Your task to perform on an android device: open app "Pinterest" Image 0: 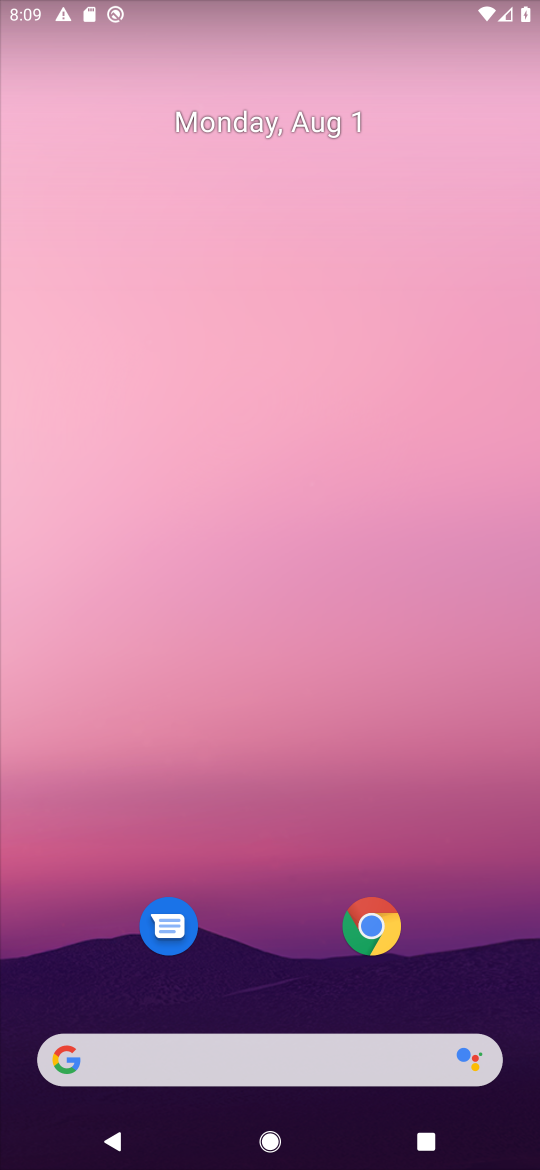
Step 0: click (336, 38)
Your task to perform on an android device: open app "Pinterest" Image 1: 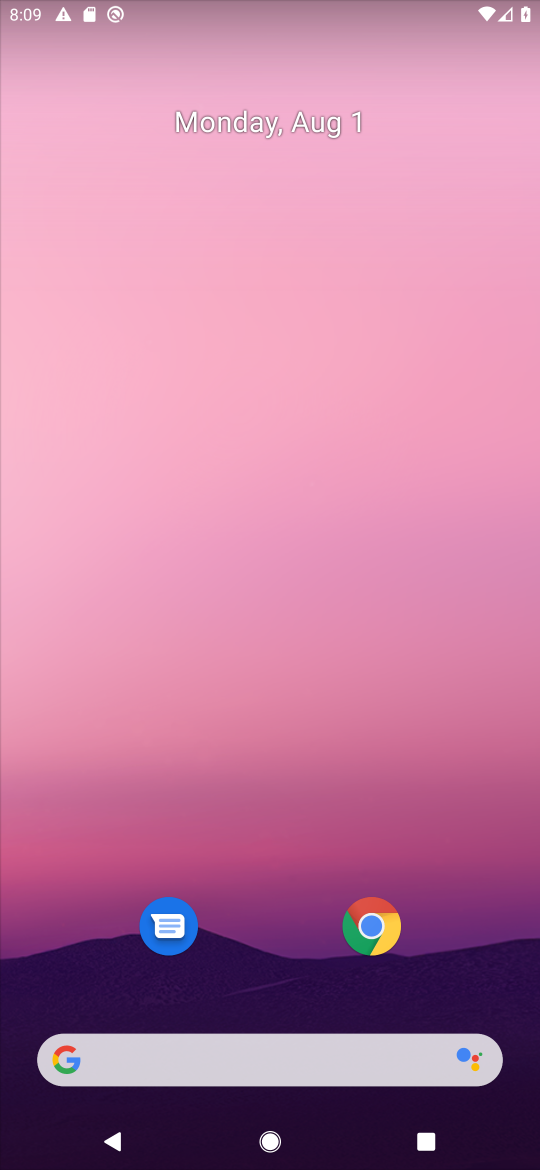
Step 1: drag from (244, 509) to (269, 323)
Your task to perform on an android device: open app "Pinterest" Image 2: 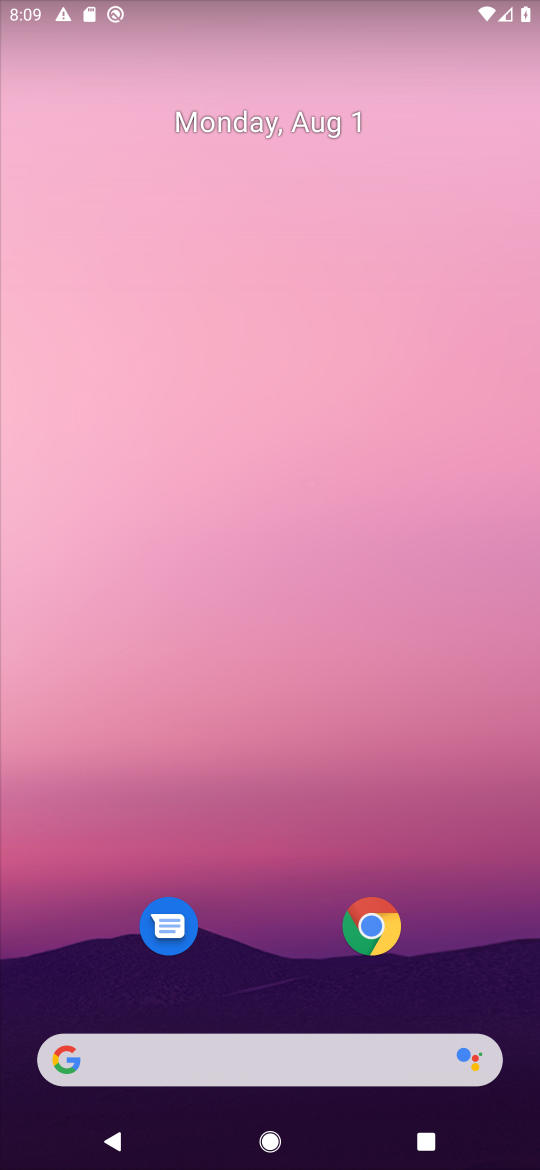
Step 2: drag from (259, 991) to (269, 71)
Your task to perform on an android device: open app "Pinterest" Image 3: 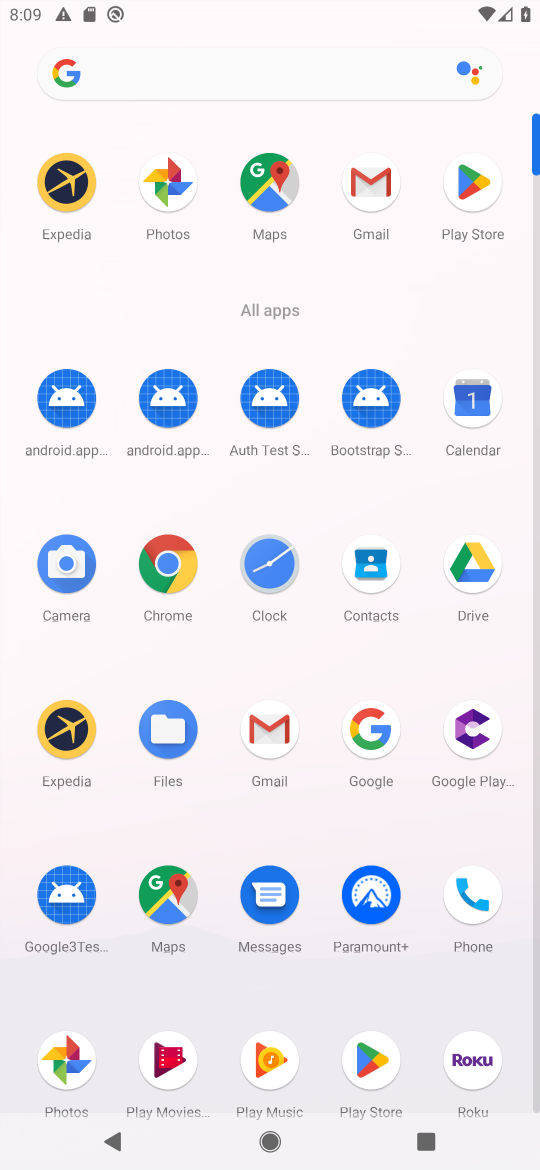
Step 3: click (465, 177)
Your task to perform on an android device: open app "Pinterest" Image 4: 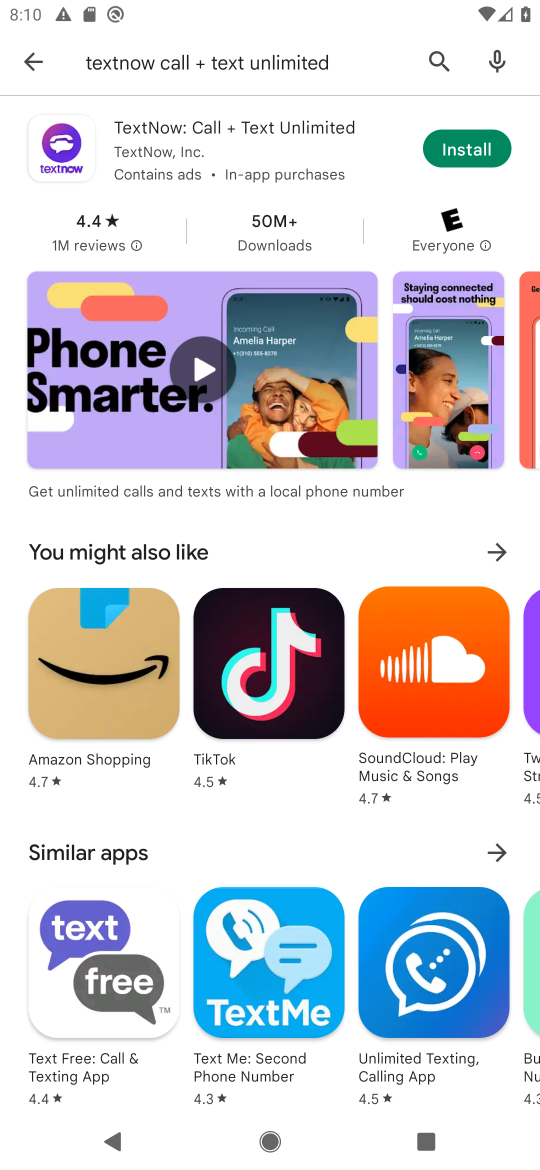
Step 4: click (434, 62)
Your task to perform on an android device: open app "Pinterest" Image 5: 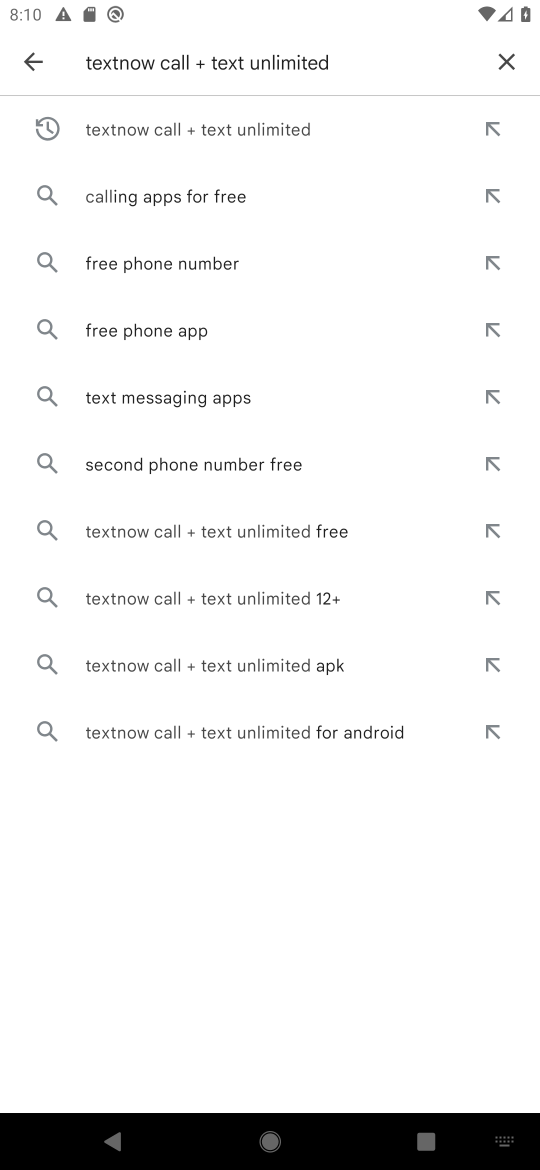
Step 5: click (507, 61)
Your task to perform on an android device: open app "Pinterest" Image 6: 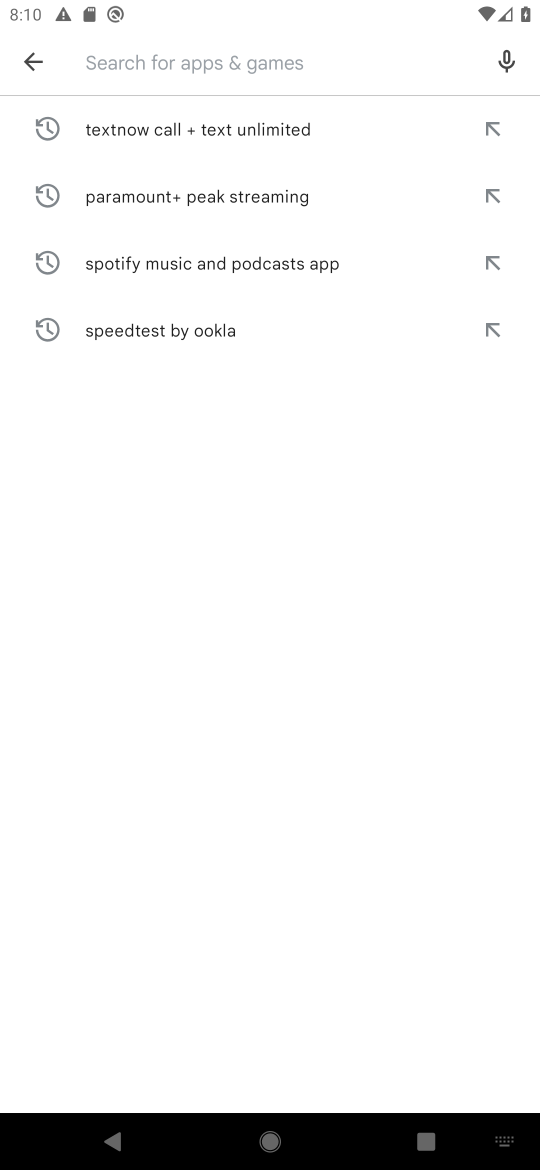
Step 6: type "Pinterest"
Your task to perform on an android device: open app "Pinterest" Image 7: 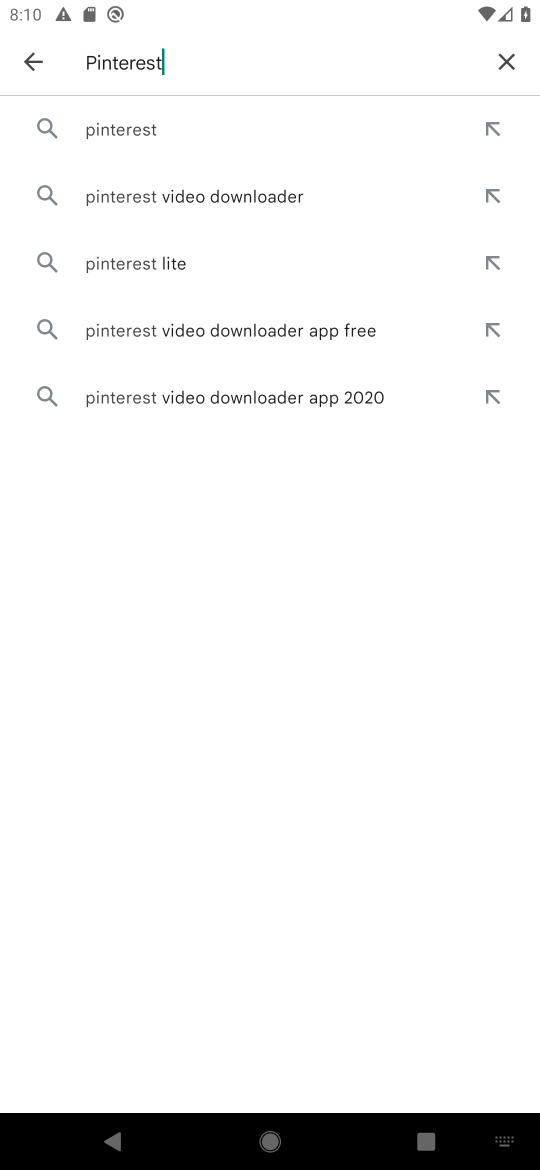
Step 7: click (145, 128)
Your task to perform on an android device: open app "Pinterest" Image 8: 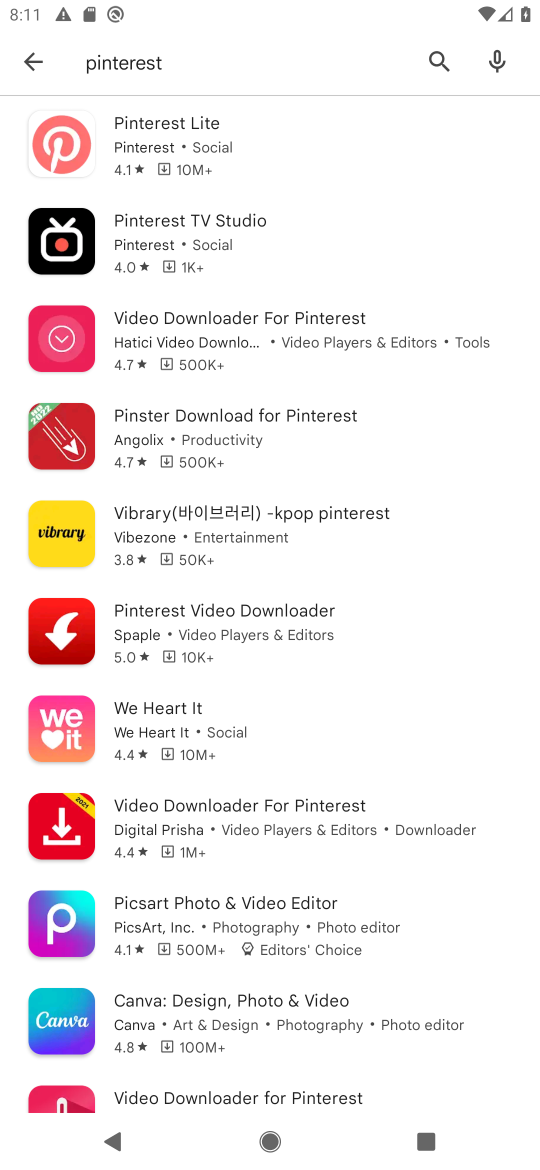
Step 8: task complete